Your task to perform on an android device: Go to notification settings Image 0: 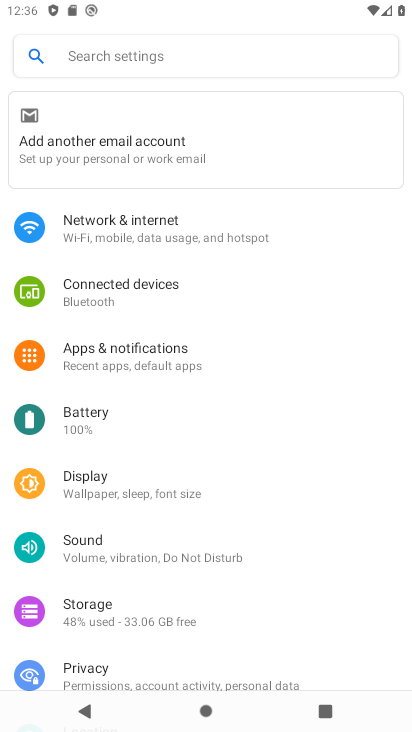
Step 0: click (205, 359)
Your task to perform on an android device: Go to notification settings Image 1: 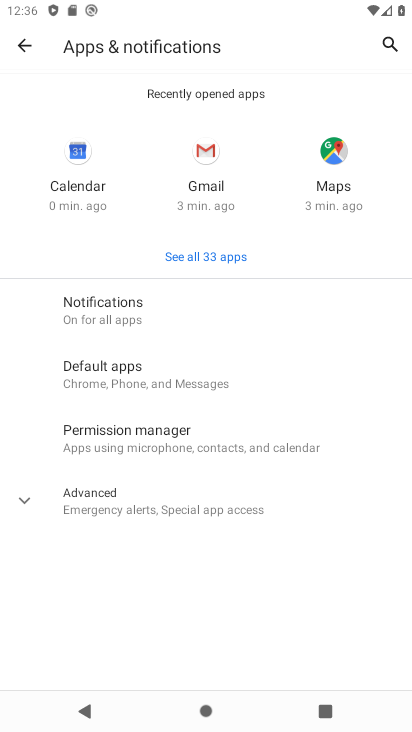
Step 1: click (123, 311)
Your task to perform on an android device: Go to notification settings Image 2: 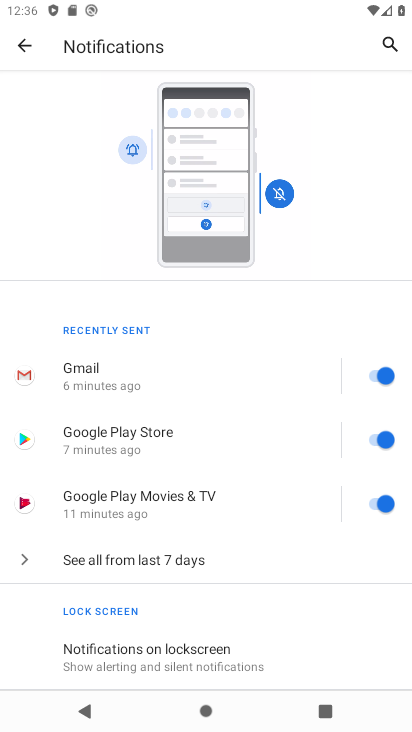
Step 2: task complete